Your task to perform on an android device: turn on translation in the chrome app Image 0: 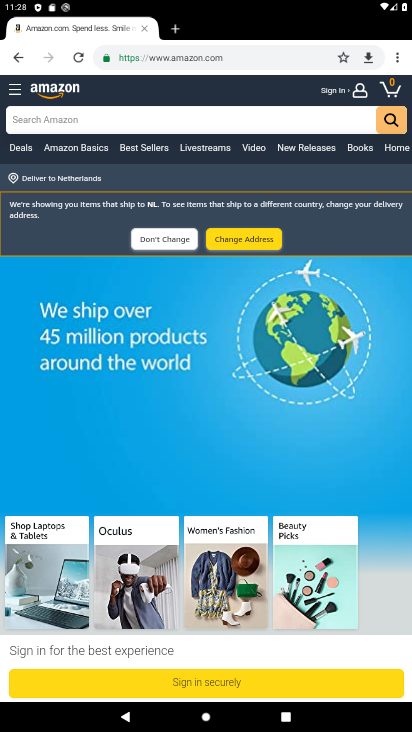
Step 0: click (390, 51)
Your task to perform on an android device: turn on translation in the chrome app Image 1: 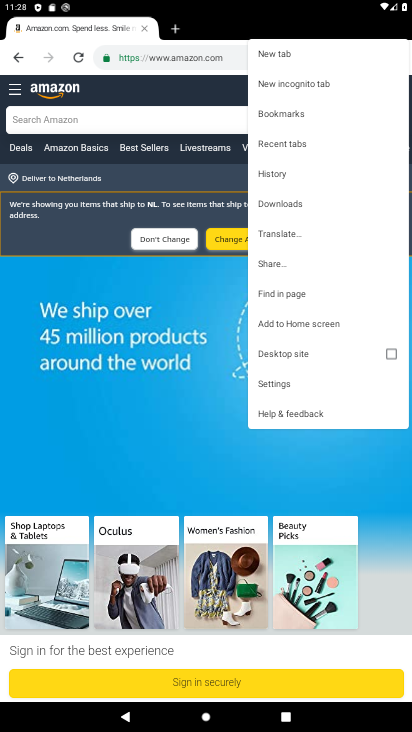
Step 1: click (271, 384)
Your task to perform on an android device: turn on translation in the chrome app Image 2: 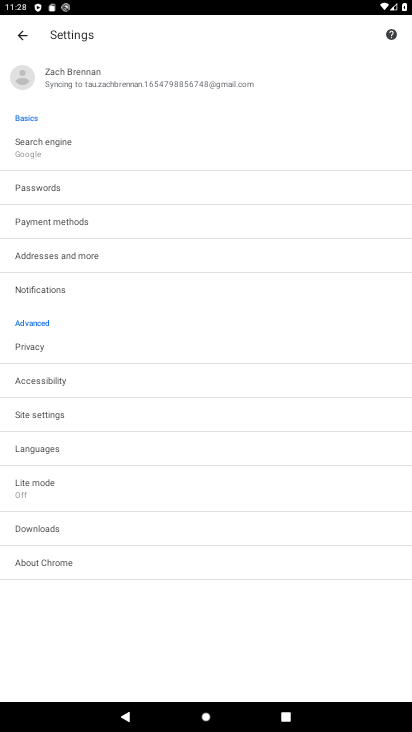
Step 2: click (54, 452)
Your task to perform on an android device: turn on translation in the chrome app Image 3: 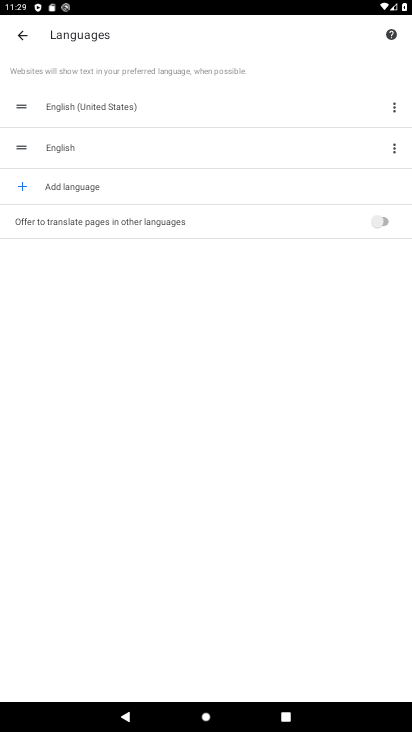
Step 3: click (398, 225)
Your task to perform on an android device: turn on translation in the chrome app Image 4: 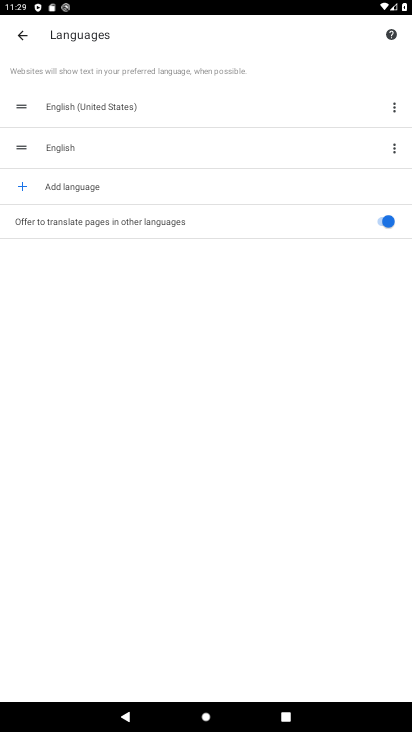
Step 4: task complete